Your task to perform on an android device: turn off sleep mode Image 0: 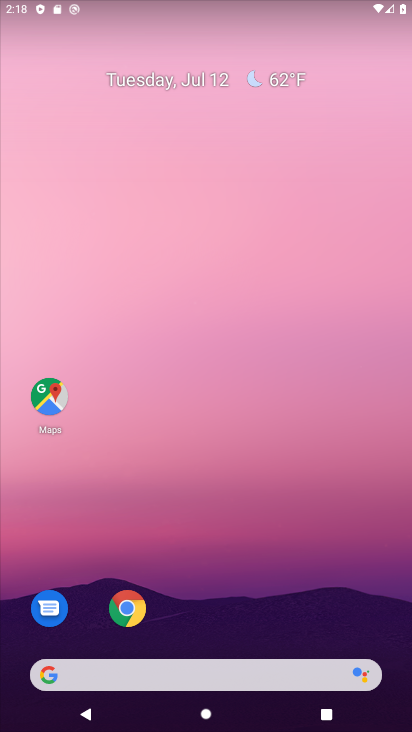
Step 0: drag from (194, 670) to (291, 104)
Your task to perform on an android device: turn off sleep mode Image 1: 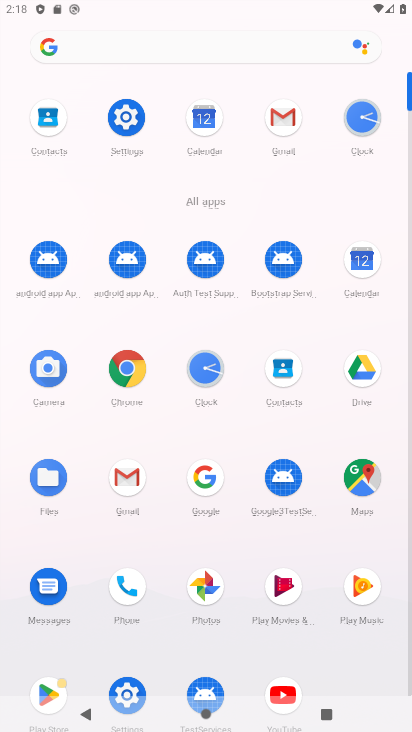
Step 1: click (118, 117)
Your task to perform on an android device: turn off sleep mode Image 2: 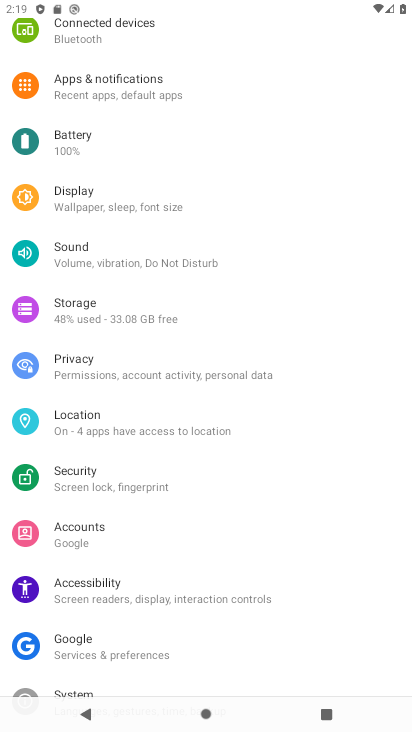
Step 2: click (172, 214)
Your task to perform on an android device: turn off sleep mode Image 3: 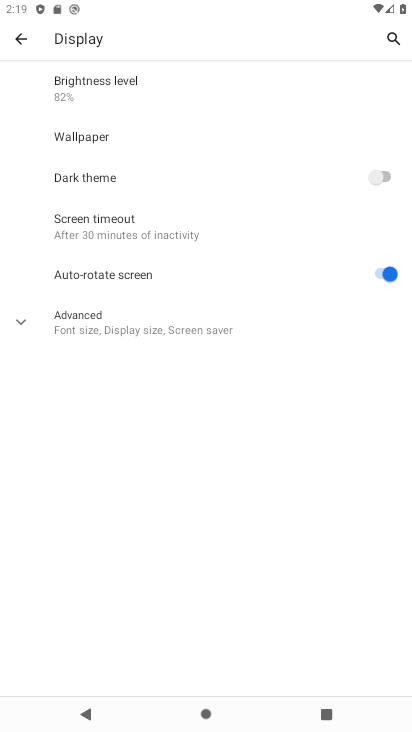
Step 3: task complete